Your task to perform on an android device: Add "macbook air" to the cart on newegg.com, then select checkout. Image 0: 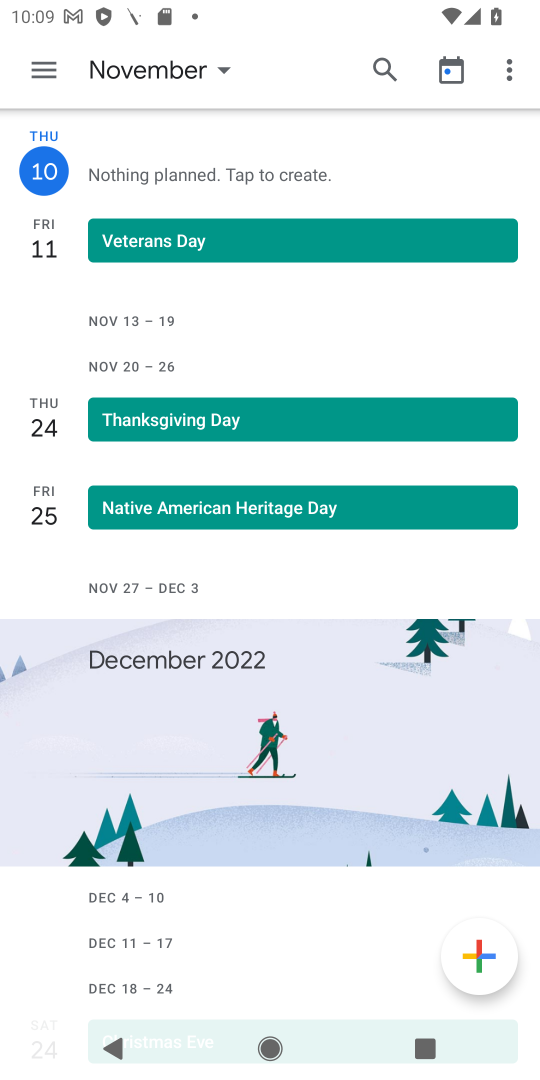
Step 0: press home button
Your task to perform on an android device: Add "macbook air" to the cart on newegg.com, then select checkout. Image 1: 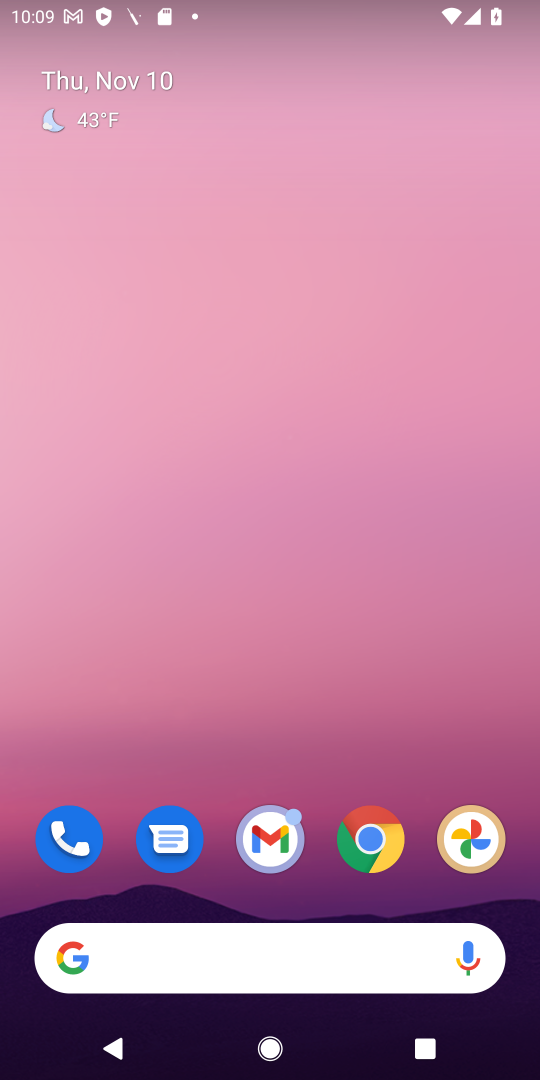
Step 1: click (381, 842)
Your task to perform on an android device: Add "macbook air" to the cart on newegg.com, then select checkout. Image 2: 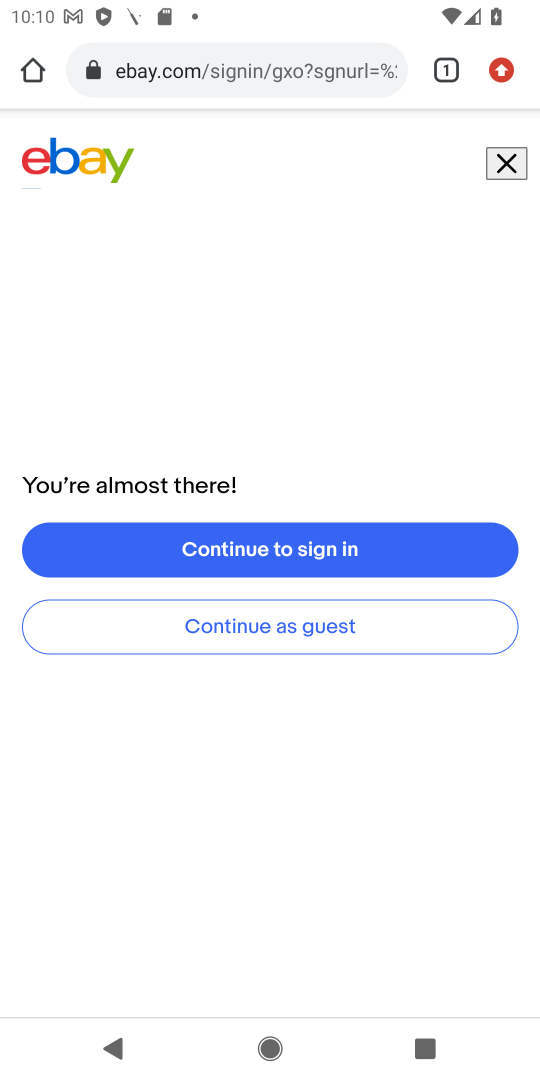
Step 2: click (301, 56)
Your task to perform on an android device: Add "macbook air" to the cart on newegg.com, then select checkout. Image 3: 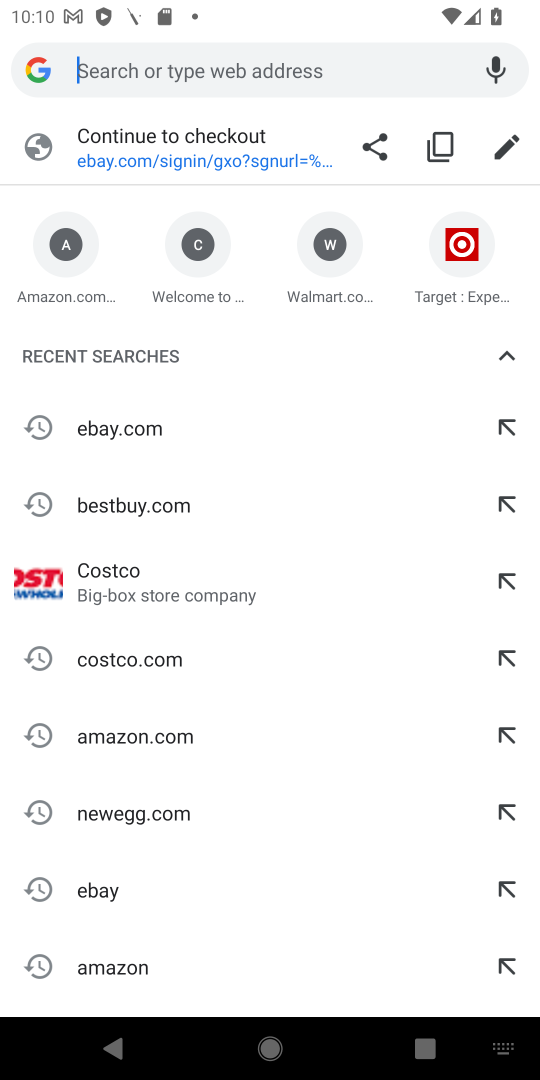
Step 3: click (177, 812)
Your task to perform on an android device: Add "macbook air" to the cart on newegg.com, then select checkout. Image 4: 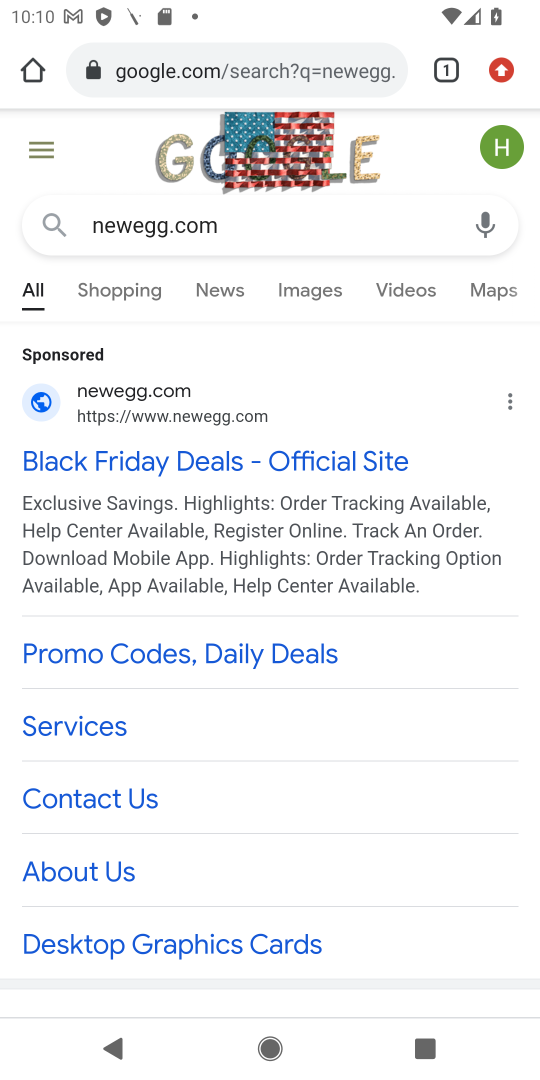
Step 4: click (250, 408)
Your task to perform on an android device: Add "macbook air" to the cart on newegg.com, then select checkout. Image 5: 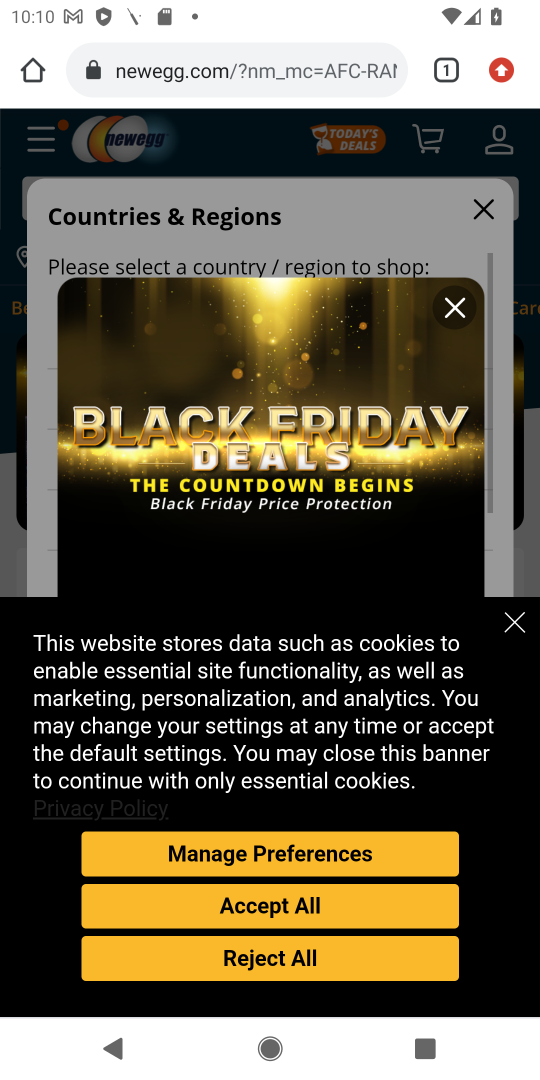
Step 5: click (308, 901)
Your task to perform on an android device: Add "macbook air" to the cart on newegg.com, then select checkout. Image 6: 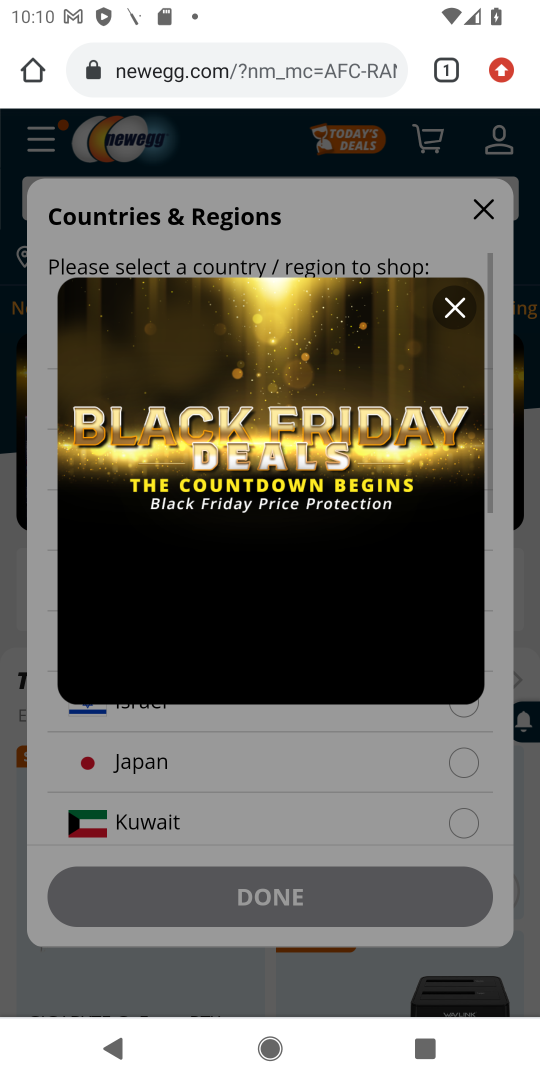
Step 6: click (456, 299)
Your task to perform on an android device: Add "macbook air" to the cart on newegg.com, then select checkout. Image 7: 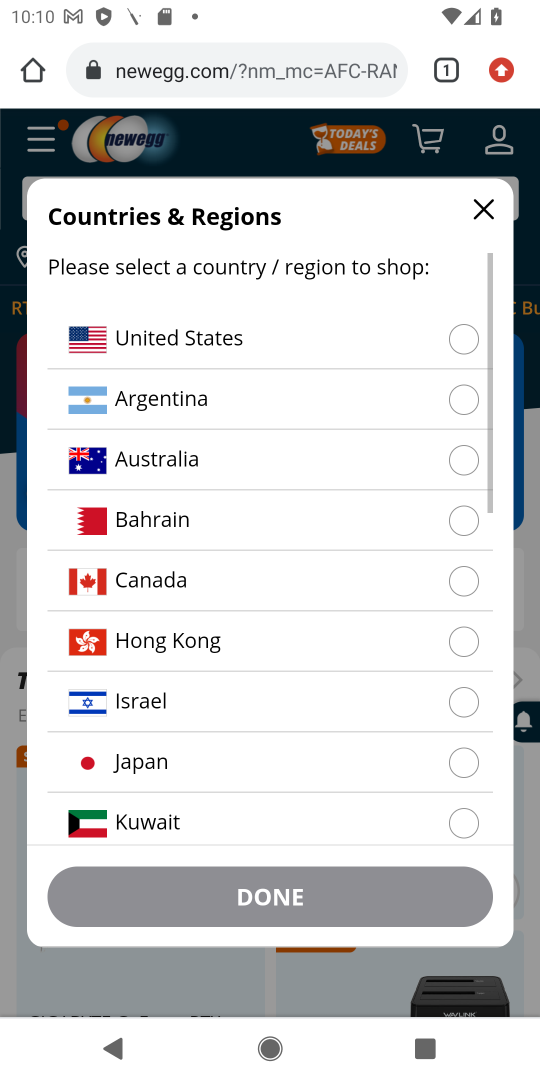
Step 7: click (467, 344)
Your task to perform on an android device: Add "macbook air" to the cart on newegg.com, then select checkout. Image 8: 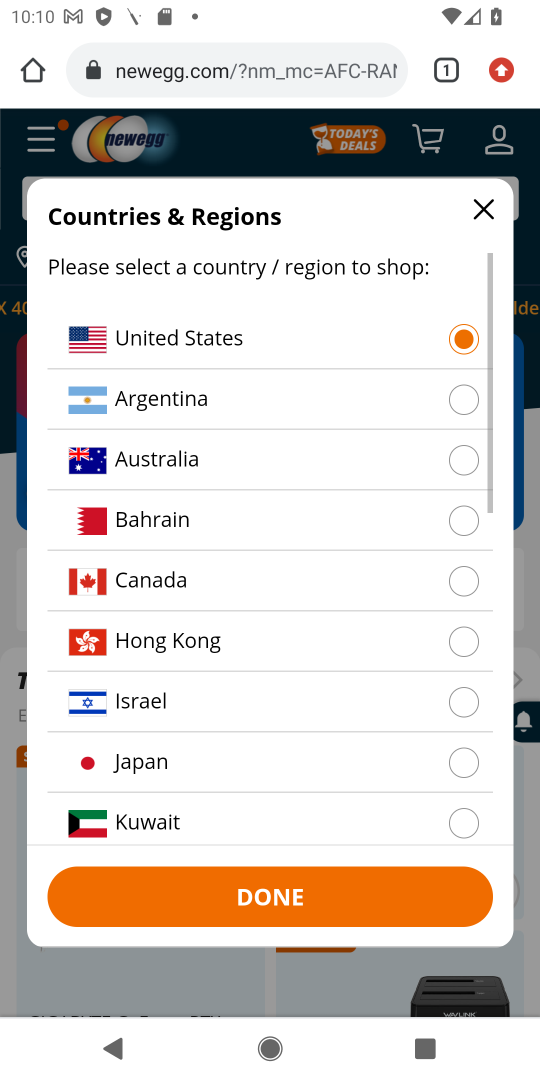
Step 8: click (348, 896)
Your task to perform on an android device: Add "macbook air" to the cart on newegg.com, then select checkout. Image 9: 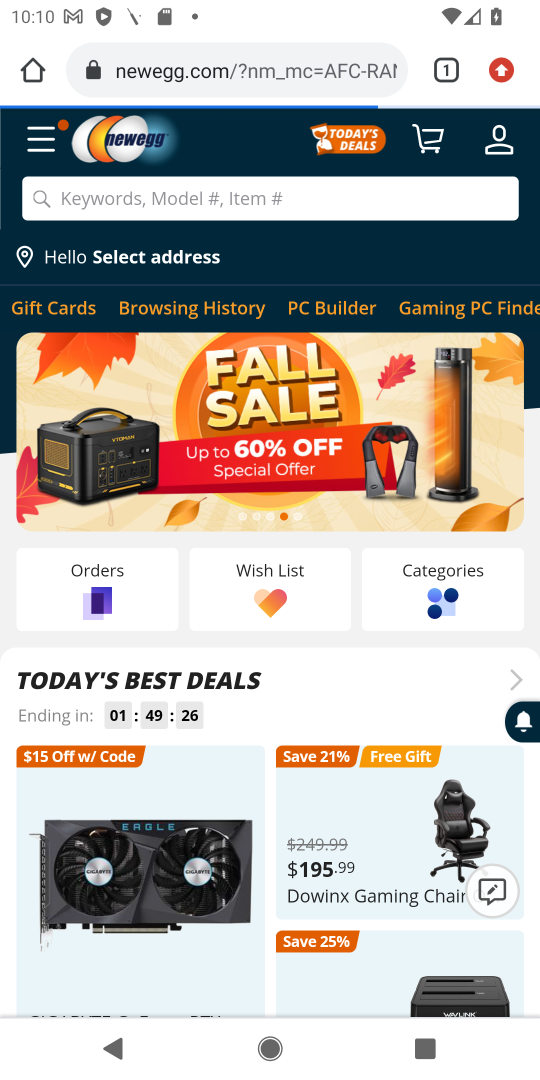
Step 9: click (470, 192)
Your task to perform on an android device: Add "macbook air" to the cart on newegg.com, then select checkout. Image 10: 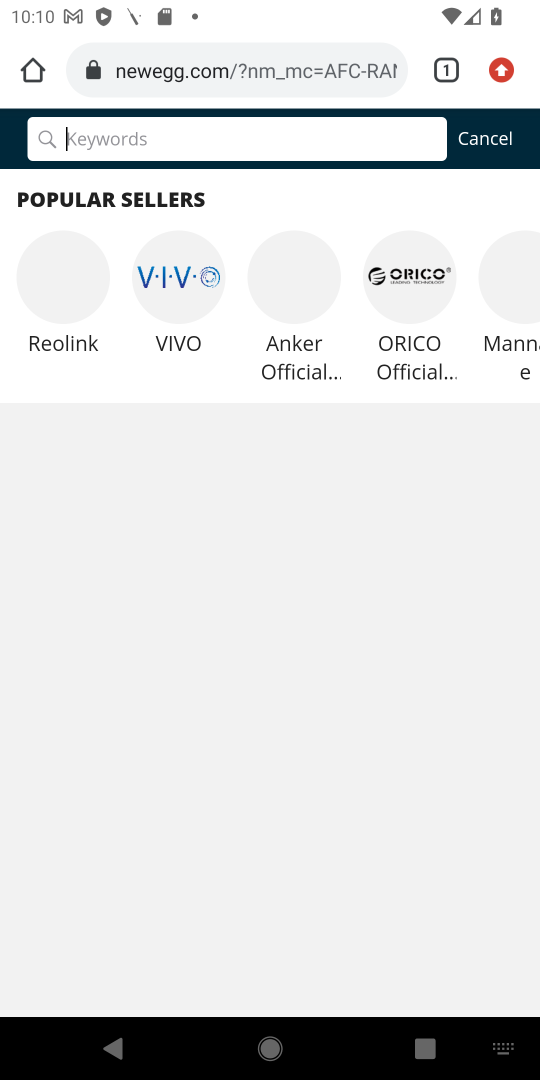
Step 10: type "macbook air"
Your task to perform on an android device: Add "macbook air" to the cart on newegg.com, then select checkout. Image 11: 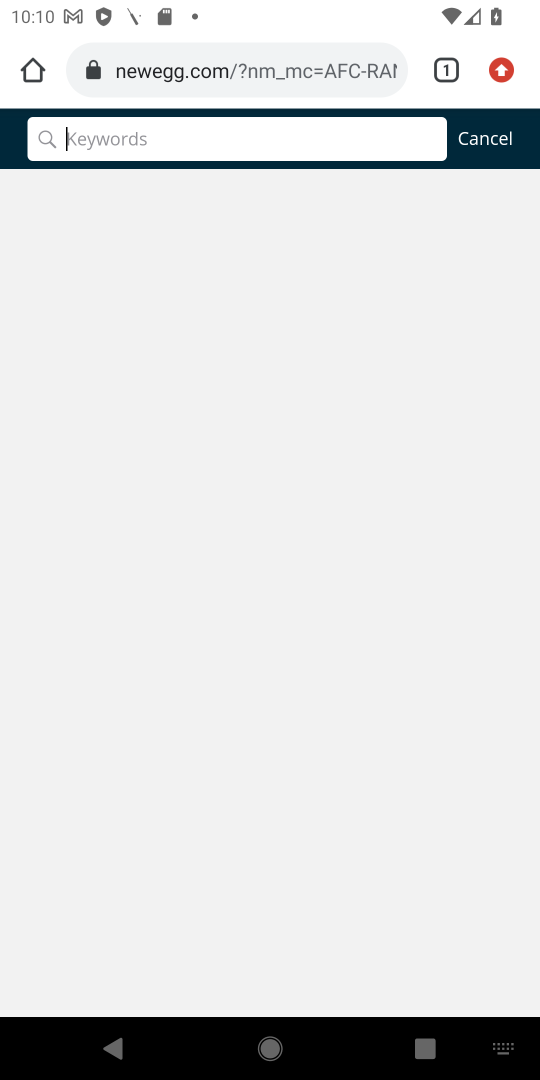
Step 11: press enter
Your task to perform on an android device: Add "macbook air" to the cart on newegg.com, then select checkout. Image 12: 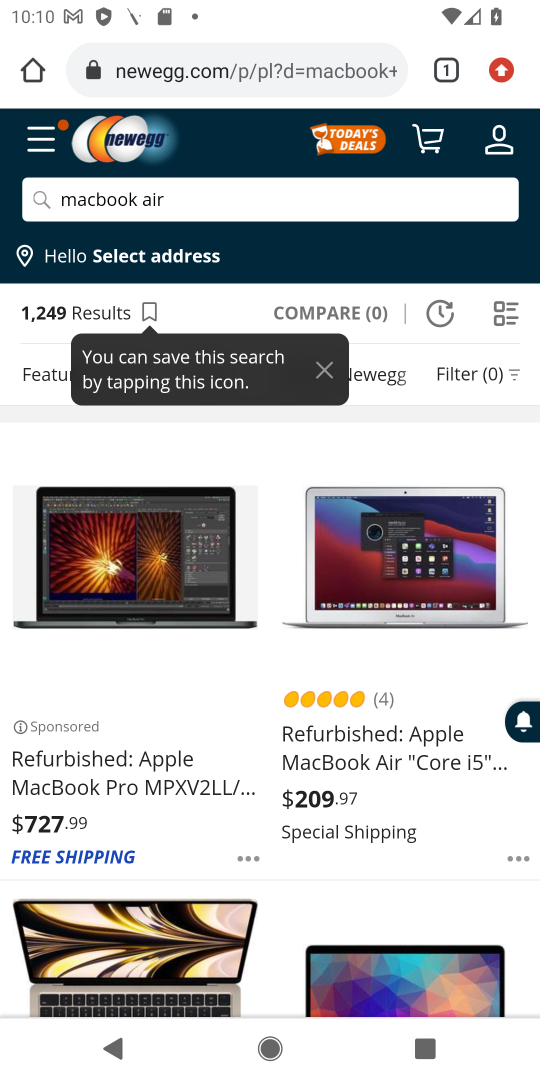
Step 12: click (424, 557)
Your task to perform on an android device: Add "macbook air" to the cart on newegg.com, then select checkout. Image 13: 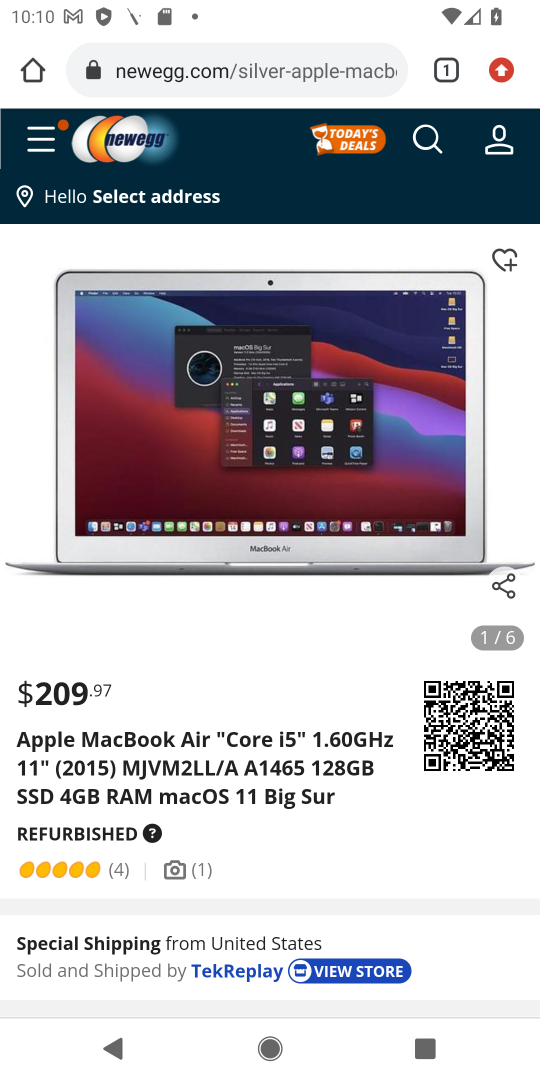
Step 13: click (287, 984)
Your task to perform on an android device: Add "macbook air" to the cart on newegg.com, then select checkout. Image 14: 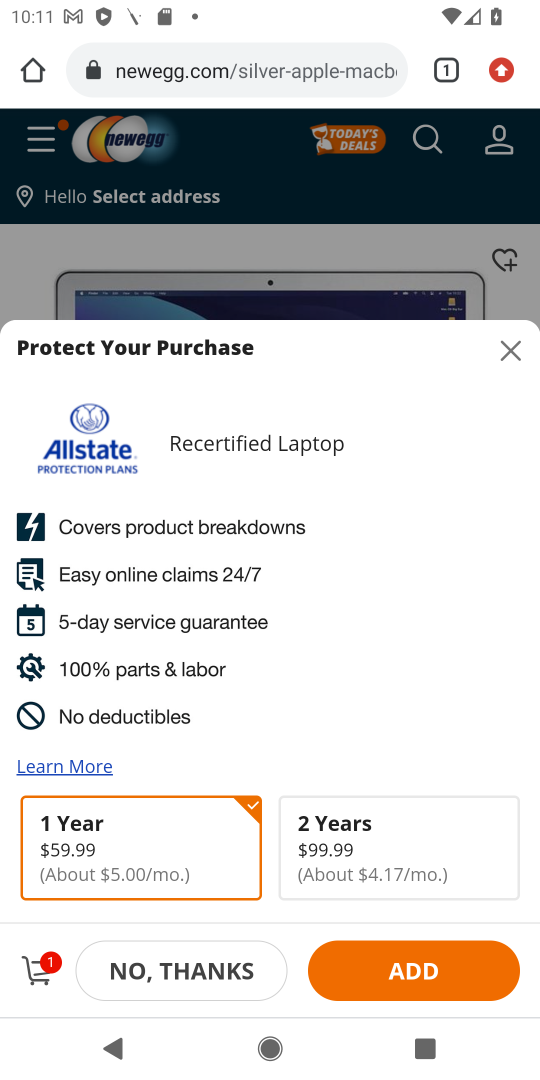
Step 14: click (508, 345)
Your task to perform on an android device: Add "macbook air" to the cart on newegg.com, then select checkout. Image 15: 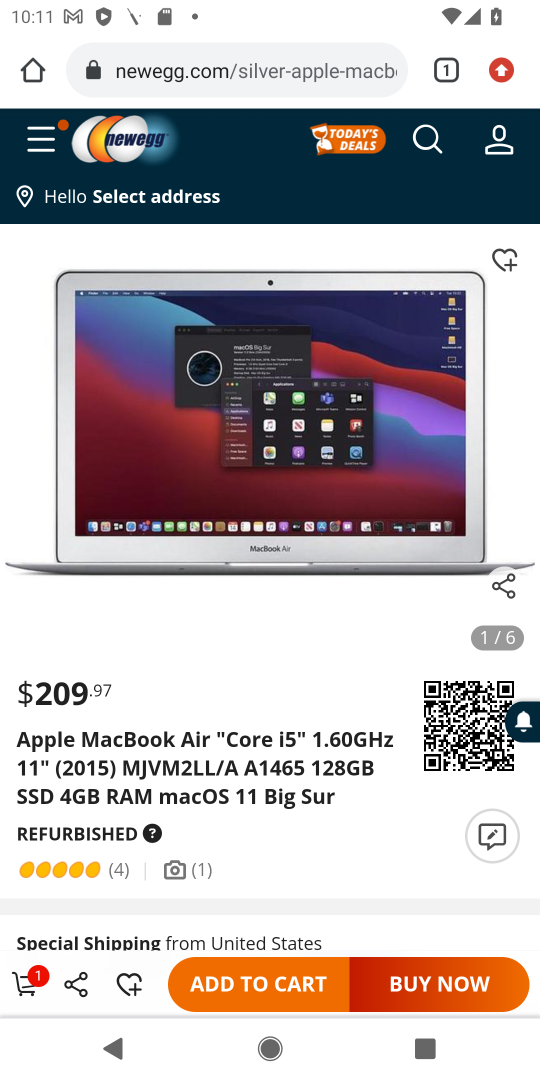
Step 15: click (34, 983)
Your task to perform on an android device: Add "macbook air" to the cart on newegg.com, then select checkout. Image 16: 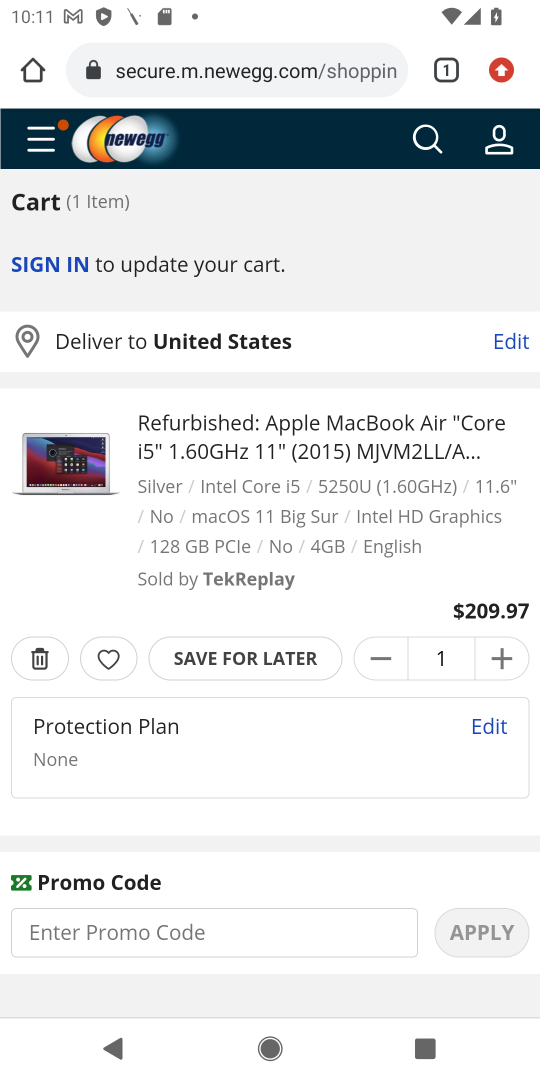
Step 16: click (285, 905)
Your task to perform on an android device: Add "macbook air" to the cart on newegg.com, then select checkout. Image 17: 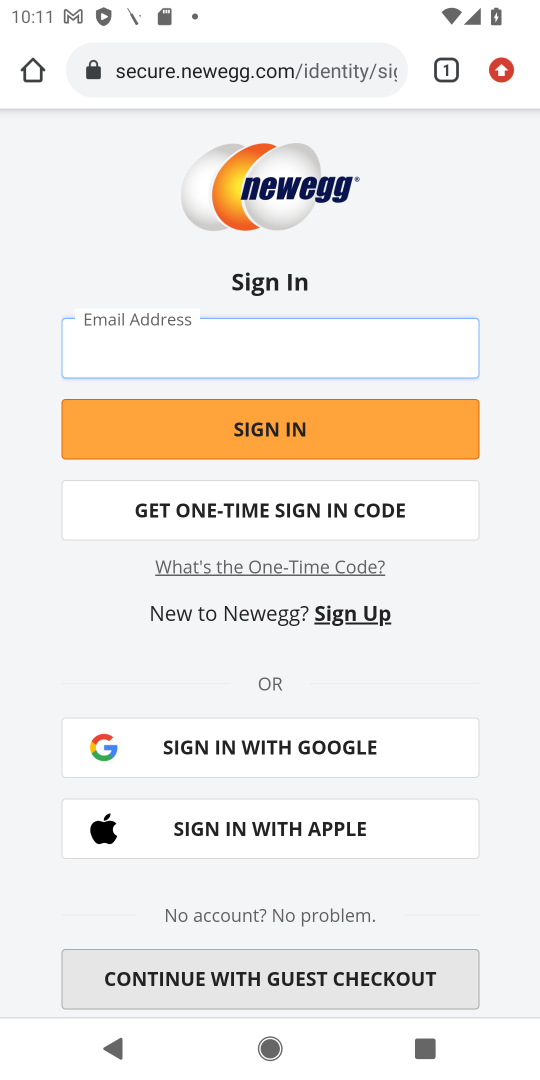
Step 17: task complete